Your task to perform on an android device: open app "Pandora - Music & Podcasts" (install if not already installed) and enter user name: "creator@yahoo.com" and password: "valuable" Image 0: 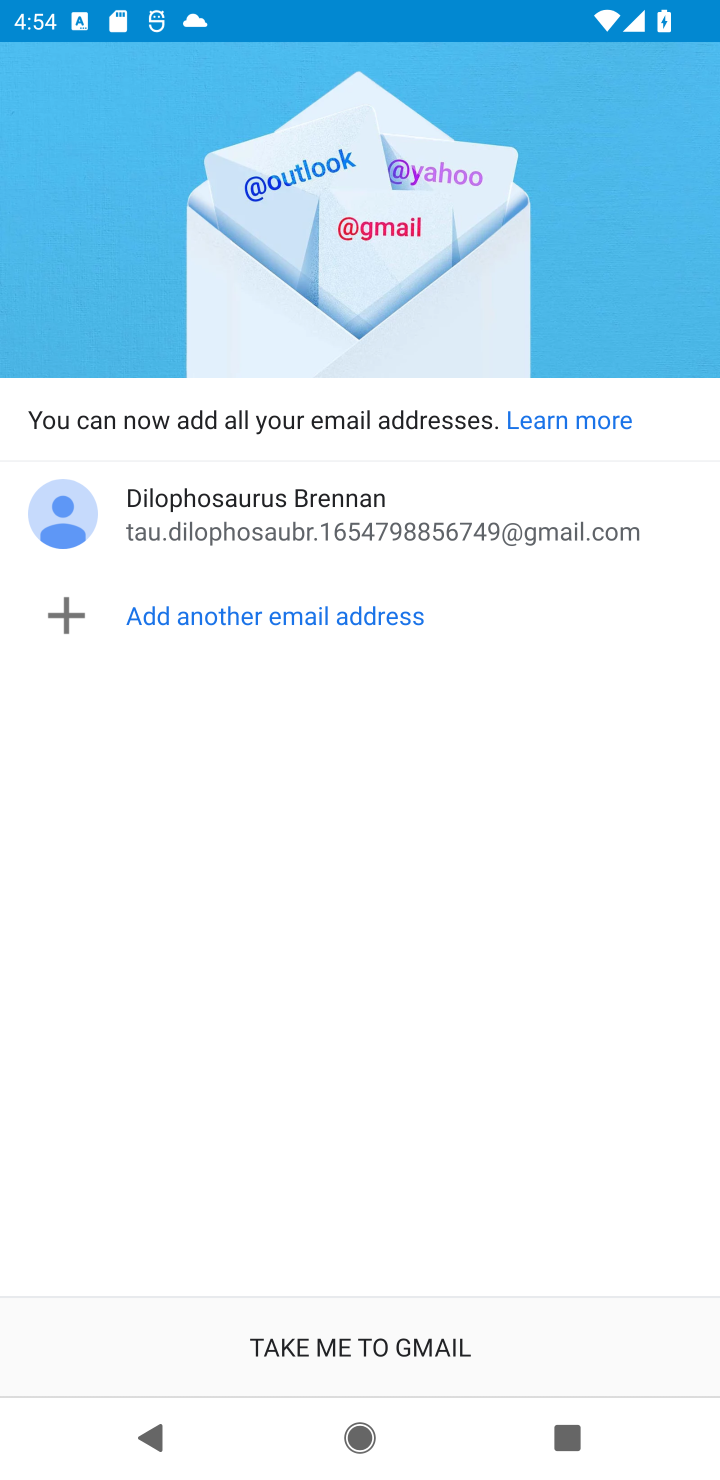
Step 0: press home button
Your task to perform on an android device: open app "Pandora - Music & Podcasts" (install if not already installed) and enter user name: "creator@yahoo.com" and password: "valuable" Image 1: 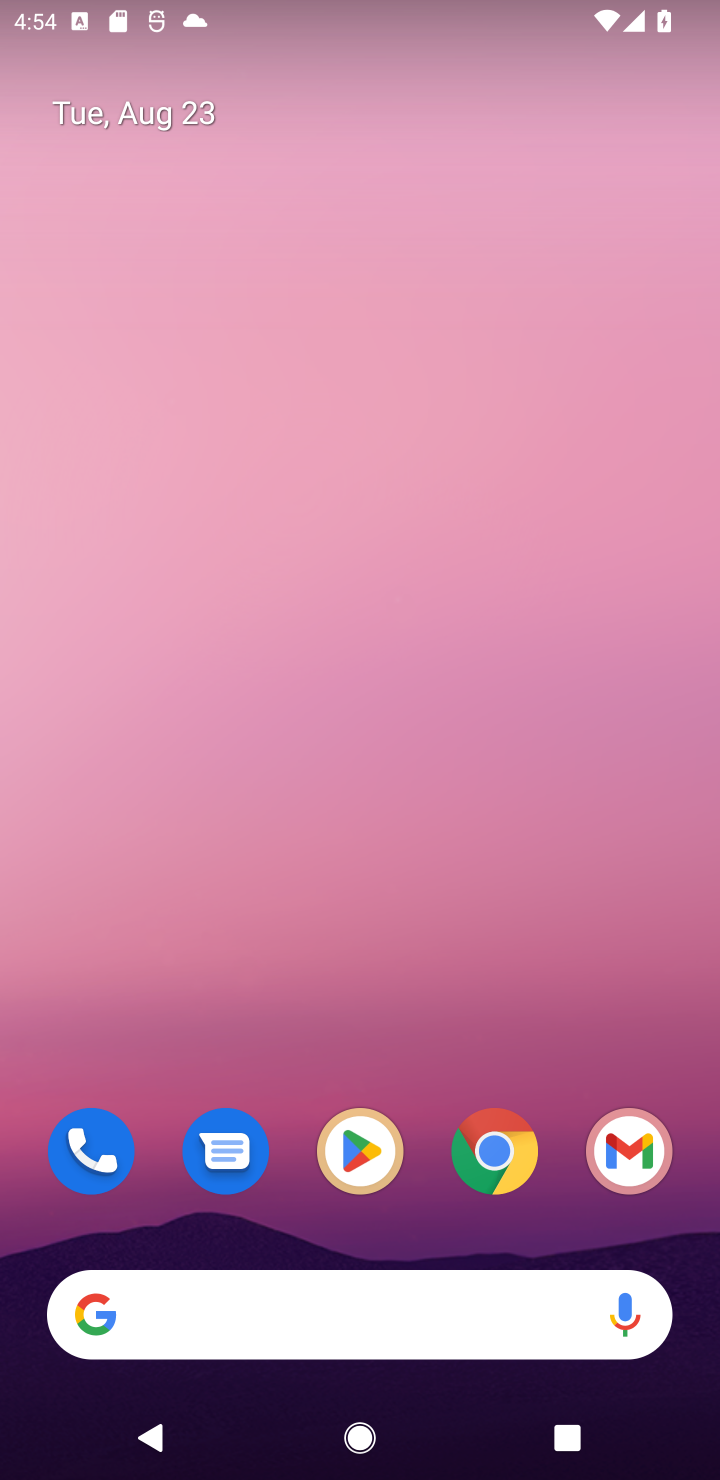
Step 1: click (366, 1156)
Your task to perform on an android device: open app "Pandora - Music & Podcasts" (install if not already installed) and enter user name: "creator@yahoo.com" and password: "valuable" Image 2: 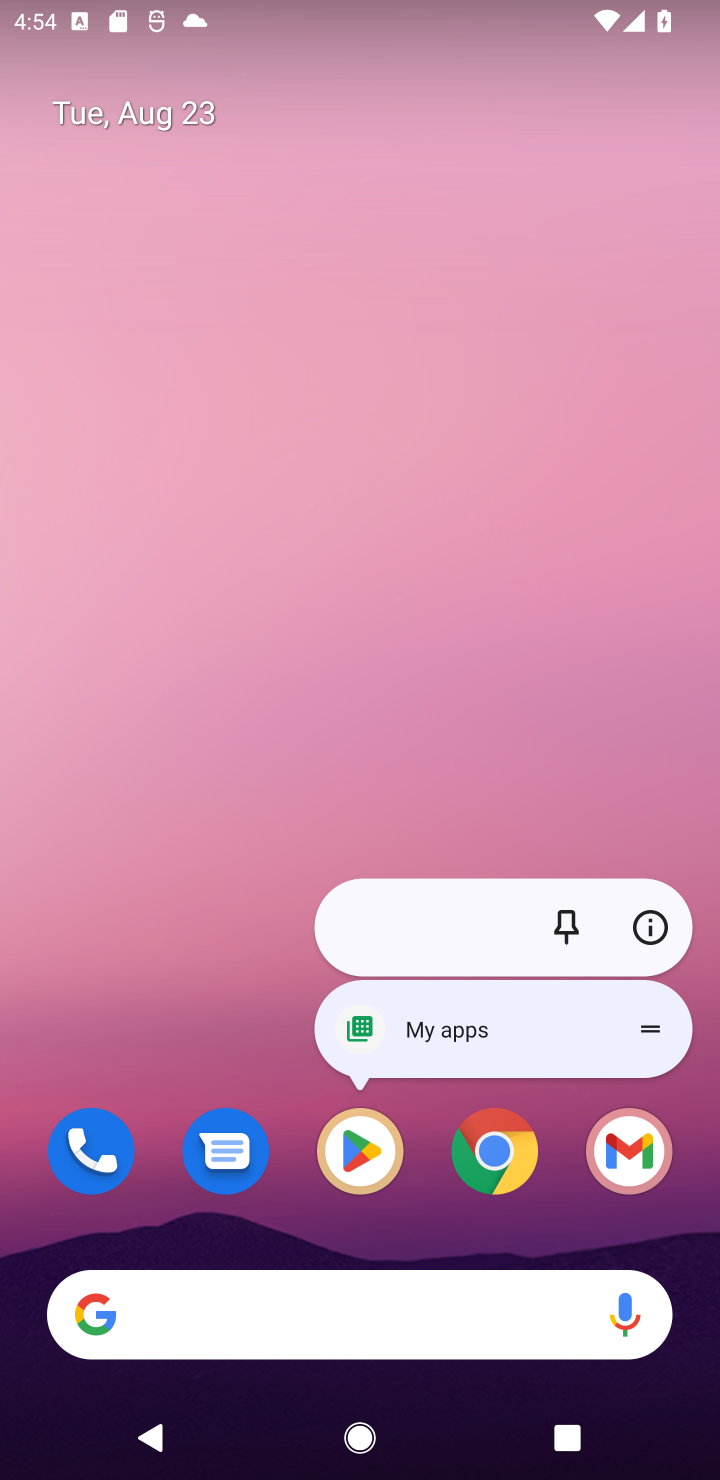
Step 2: click (355, 1152)
Your task to perform on an android device: open app "Pandora - Music & Podcasts" (install if not already installed) and enter user name: "creator@yahoo.com" and password: "valuable" Image 3: 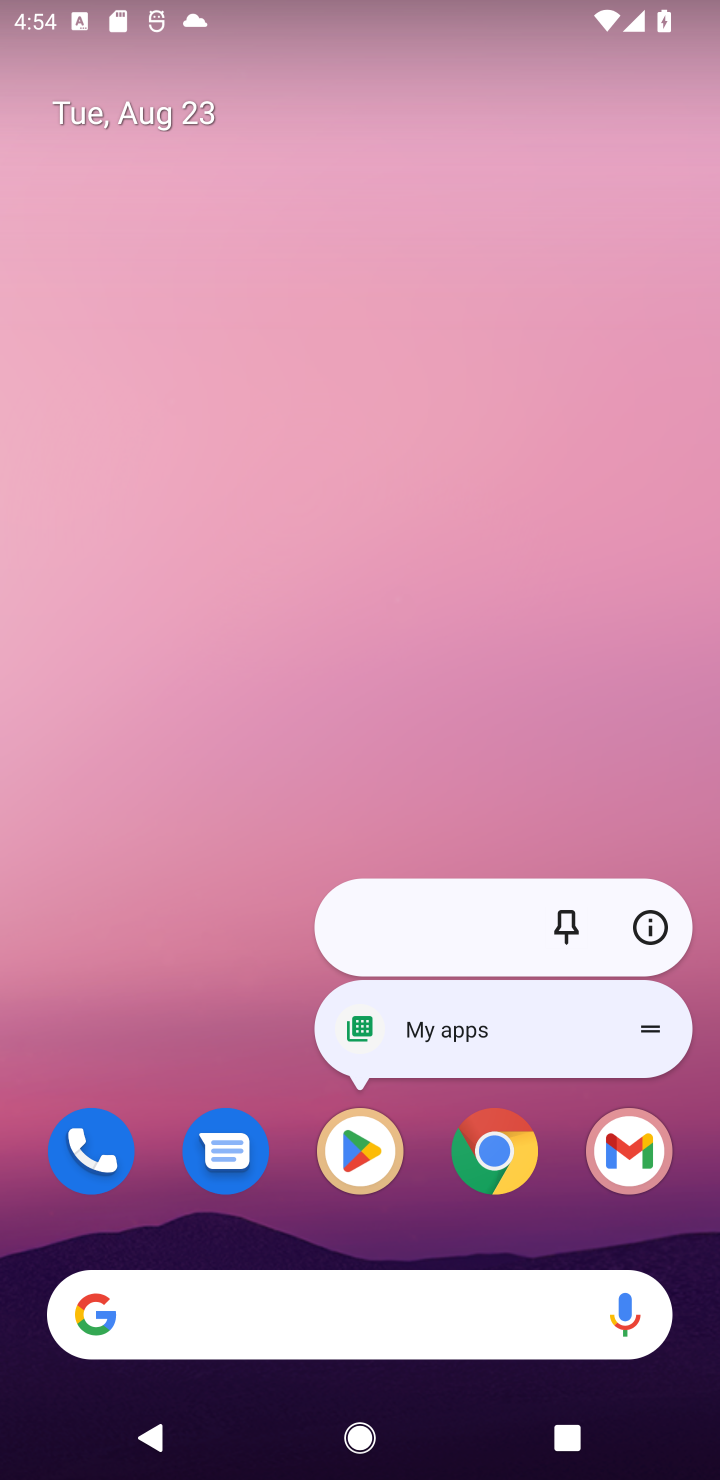
Step 3: click (353, 1152)
Your task to perform on an android device: open app "Pandora - Music & Podcasts" (install if not already installed) and enter user name: "creator@yahoo.com" and password: "valuable" Image 4: 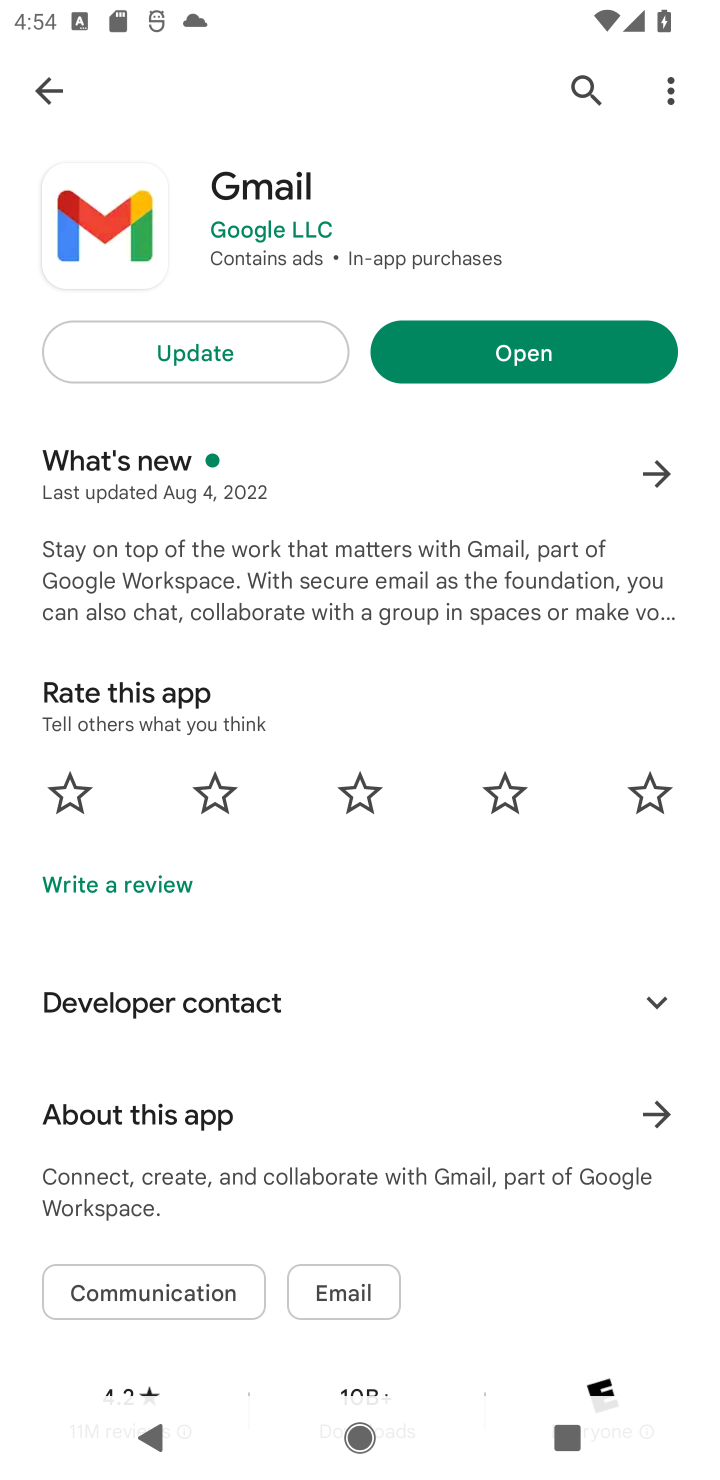
Step 4: click (573, 86)
Your task to perform on an android device: open app "Pandora - Music & Podcasts" (install if not already installed) and enter user name: "creator@yahoo.com" and password: "valuable" Image 5: 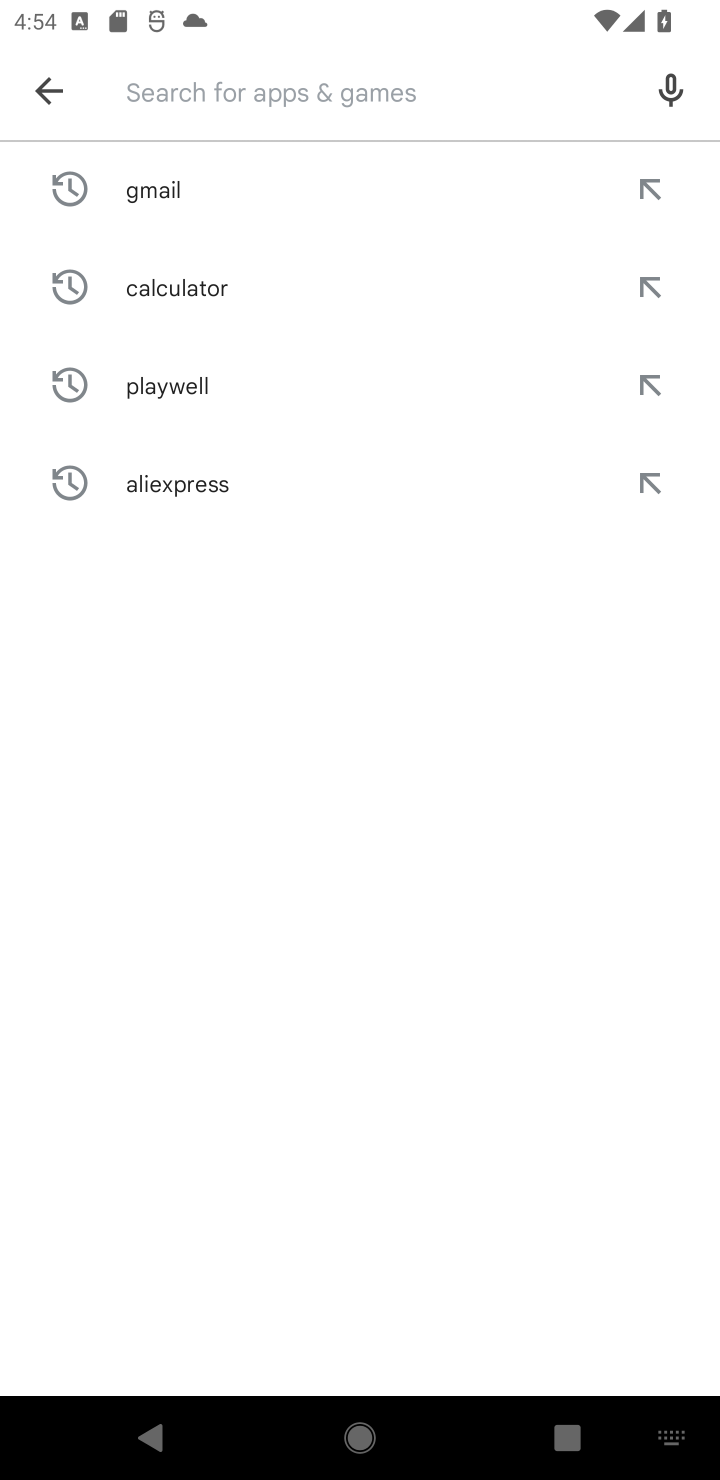
Step 5: type "Pandora - Music & Podcasts"
Your task to perform on an android device: open app "Pandora - Music & Podcasts" (install if not already installed) and enter user name: "creator@yahoo.com" and password: "valuable" Image 6: 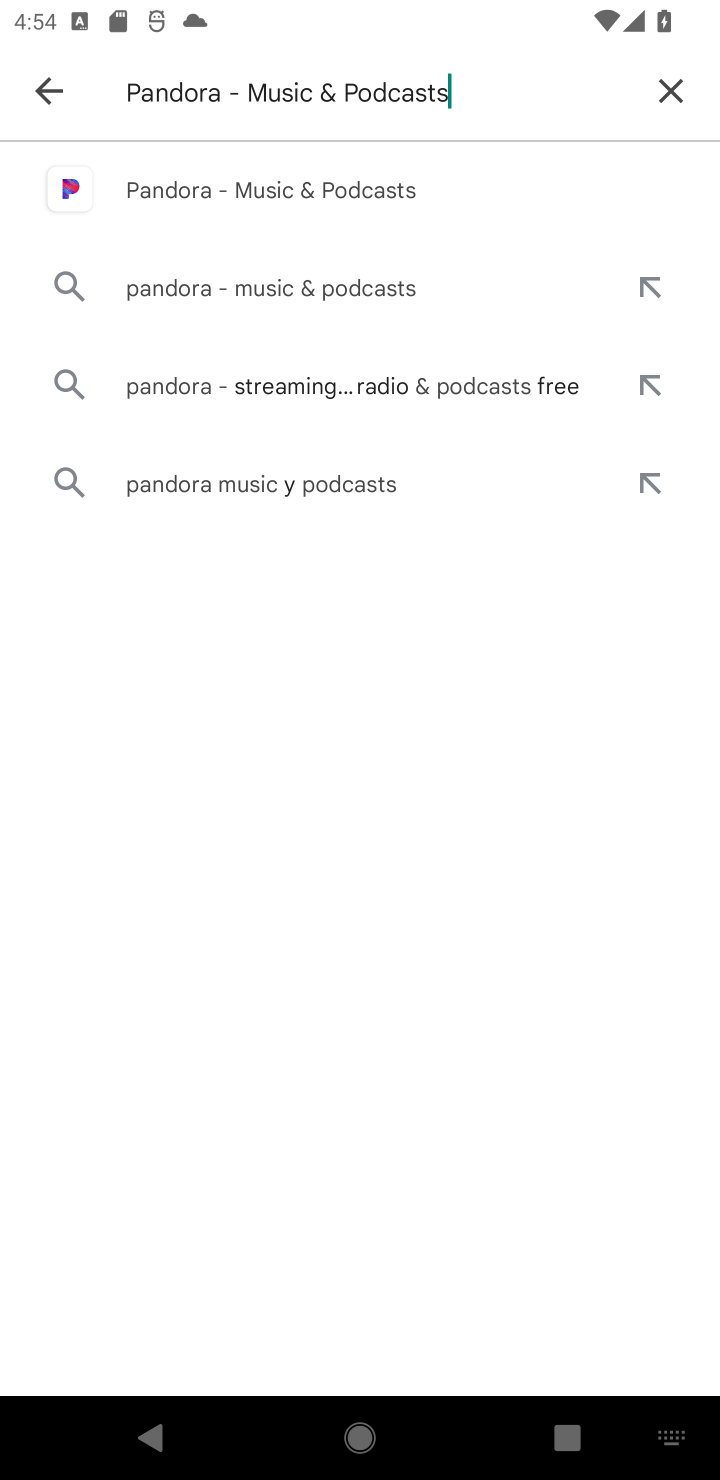
Step 6: click (355, 198)
Your task to perform on an android device: open app "Pandora - Music & Podcasts" (install if not already installed) and enter user name: "creator@yahoo.com" and password: "valuable" Image 7: 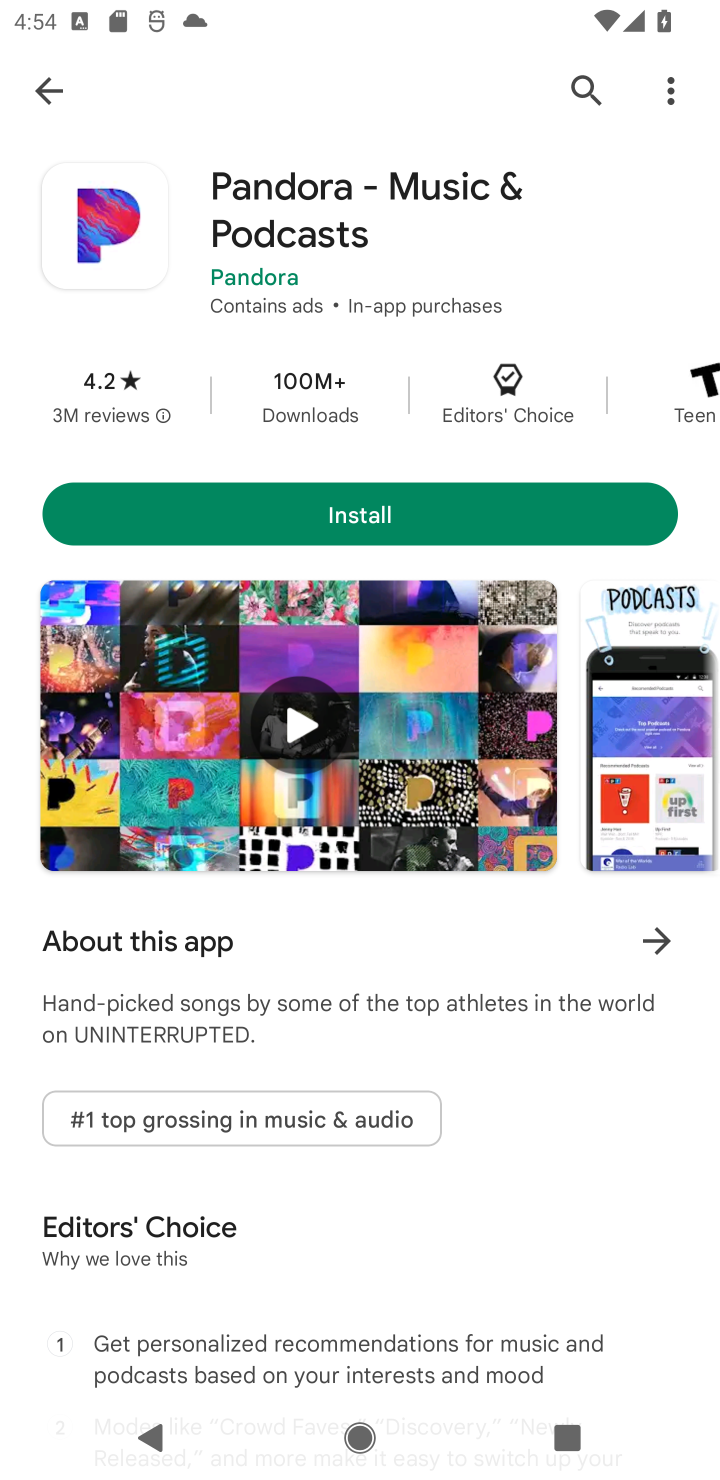
Step 7: click (428, 517)
Your task to perform on an android device: open app "Pandora - Music & Podcasts" (install if not already installed) and enter user name: "creator@yahoo.com" and password: "valuable" Image 8: 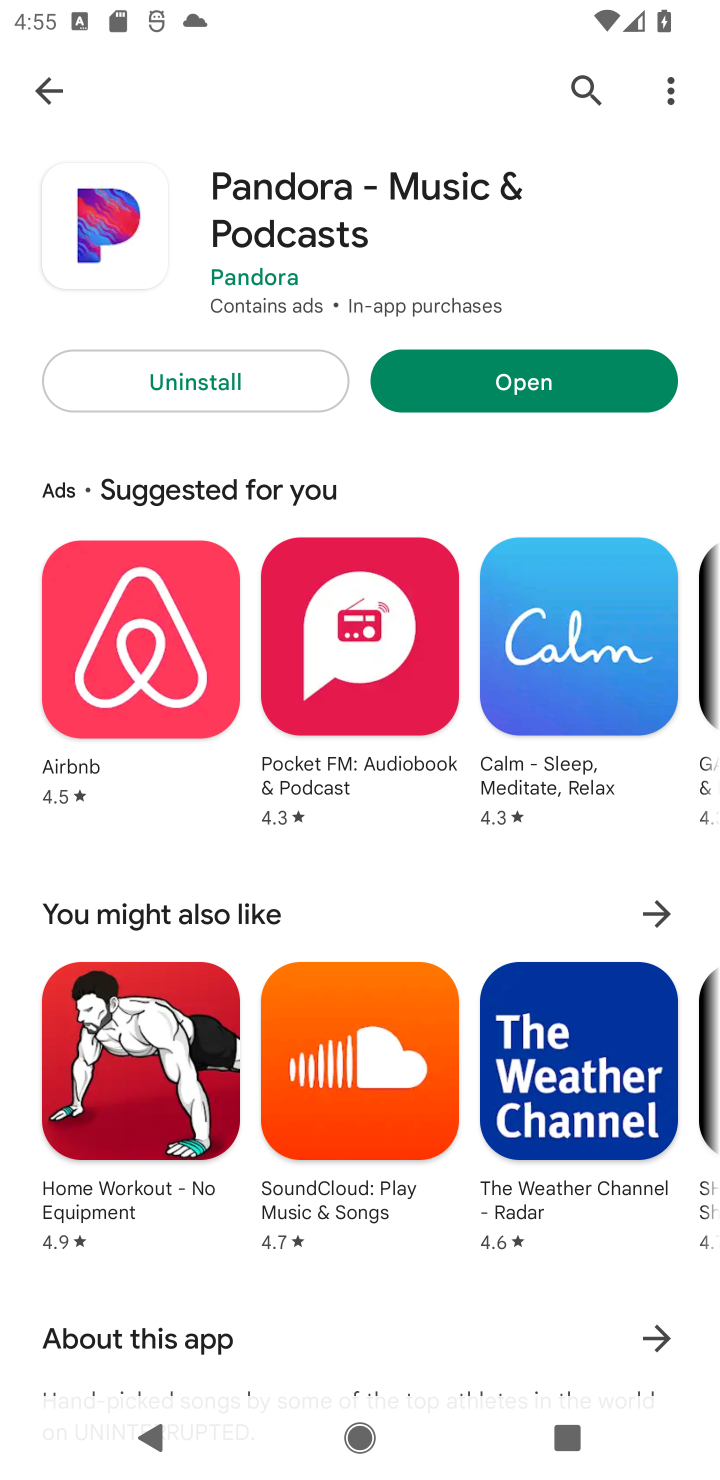
Step 8: click (526, 374)
Your task to perform on an android device: open app "Pandora - Music & Podcasts" (install if not already installed) and enter user name: "creator@yahoo.com" and password: "valuable" Image 9: 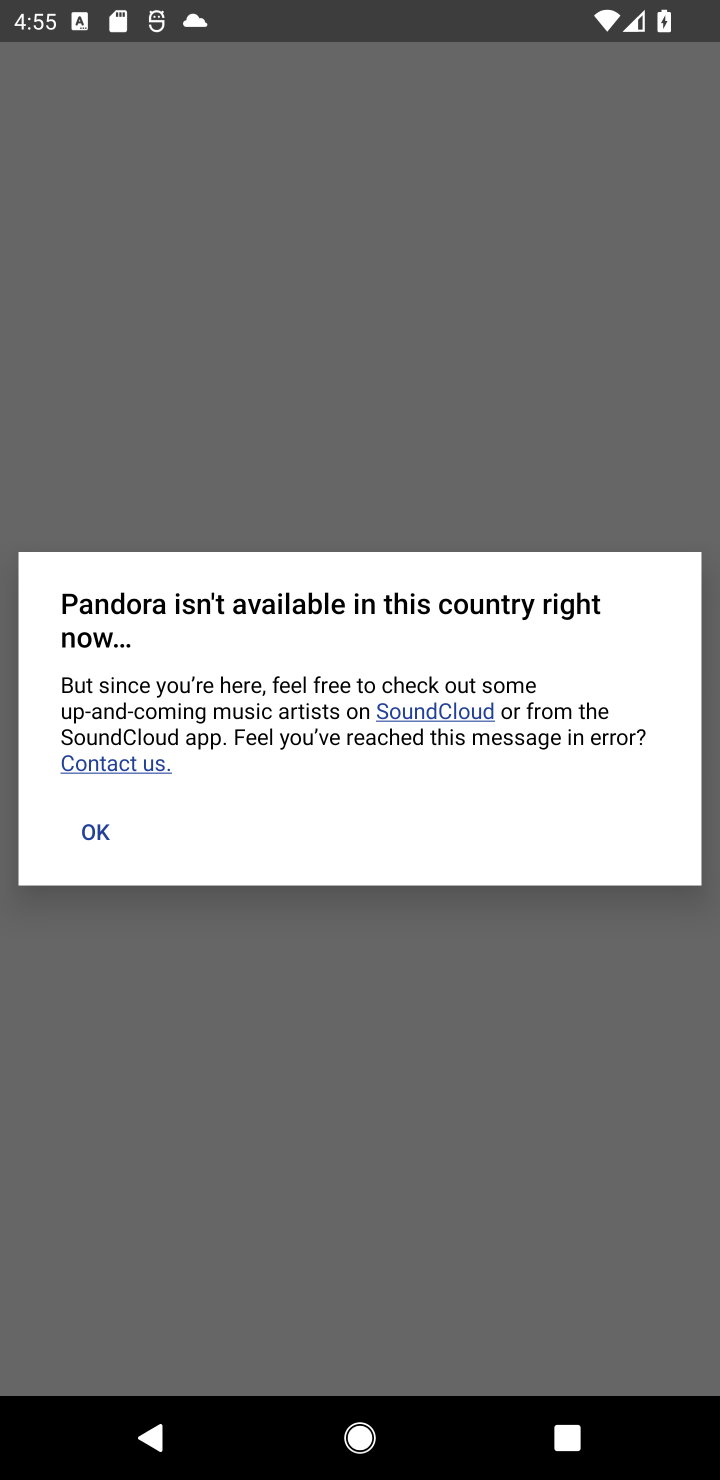
Step 9: task complete